Your task to perform on an android device: Open calendar and show me the first week of next month Image 0: 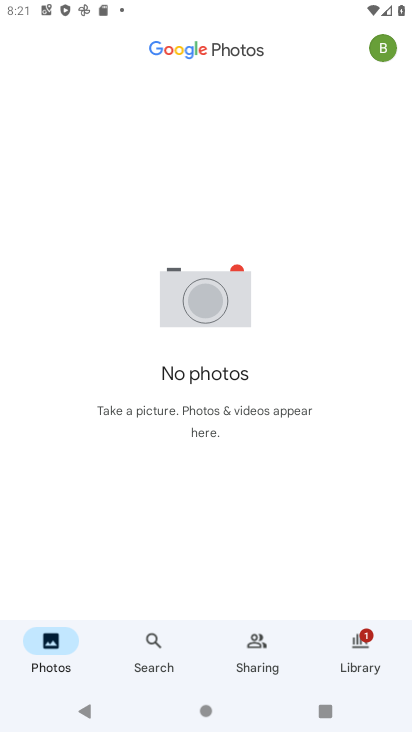
Step 0: press home button
Your task to perform on an android device: Open calendar and show me the first week of next month Image 1: 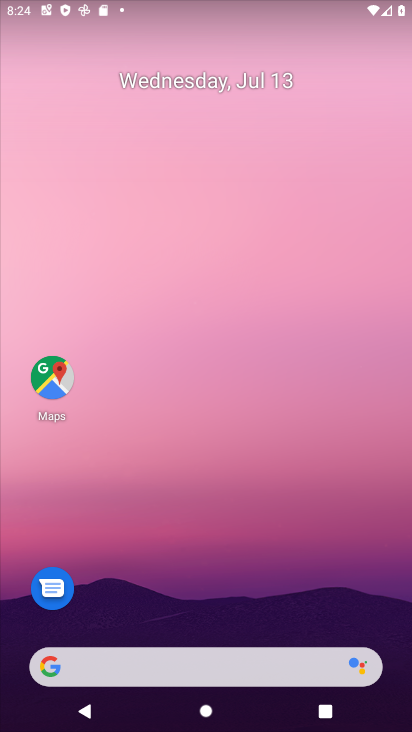
Step 1: drag from (140, 634) to (164, 17)
Your task to perform on an android device: Open calendar and show me the first week of next month Image 2: 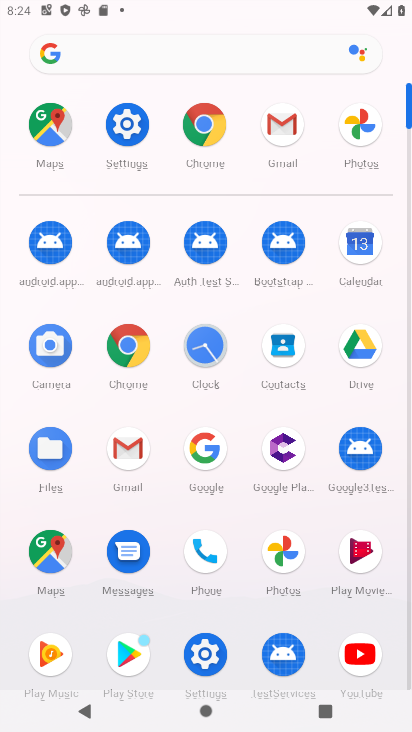
Step 2: click (360, 254)
Your task to perform on an android device: Open calendar and show me the first week of next month Image 3: 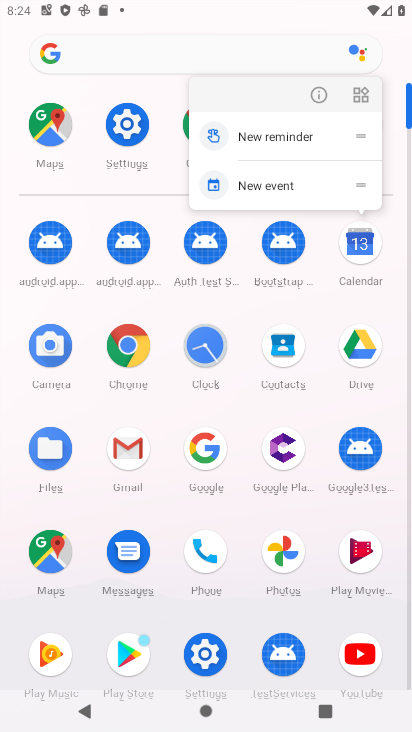
Step 3: click (360, 254)
Your task to perform on an android device: Open calendar and show me the first week of next month Image 4: 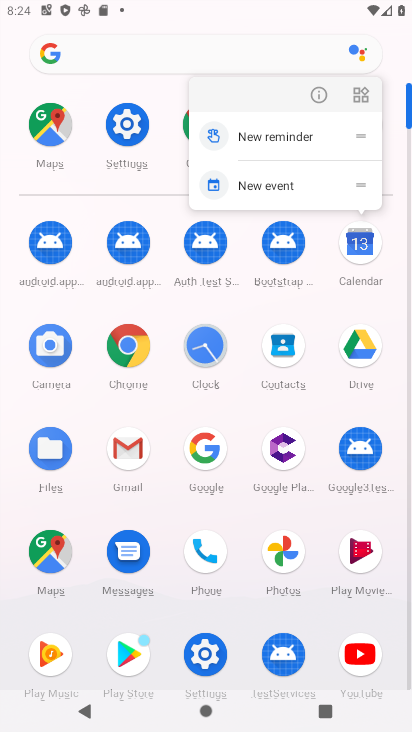
Step 4: click (360, 254)
Your task to perform on an android device: Open calendar and show me the first week of next month Image 5: 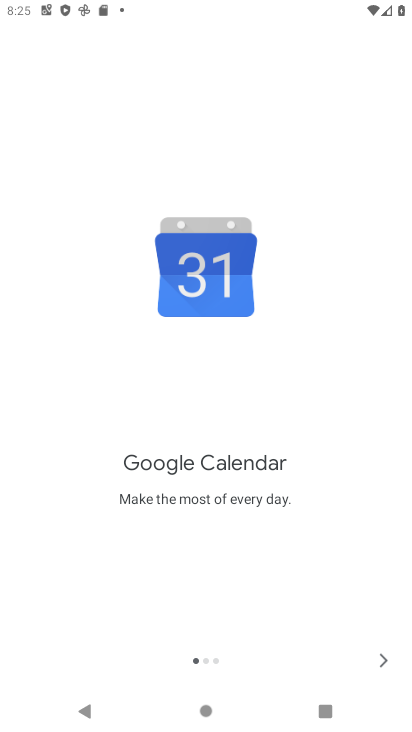
Step 5: click (376, 663)
Your task to perform on an android device: Open calendar and show me the first week of next month Image 6: 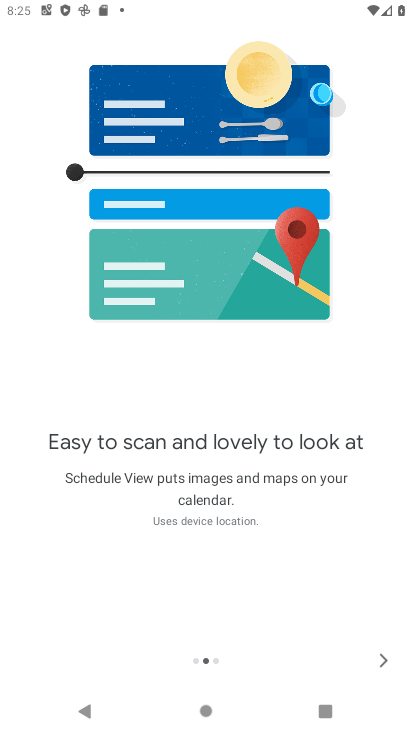
Step 6: click (382, 658)
Your task to perform on an android device: Open calendar and show me the first week of next month Image 7: 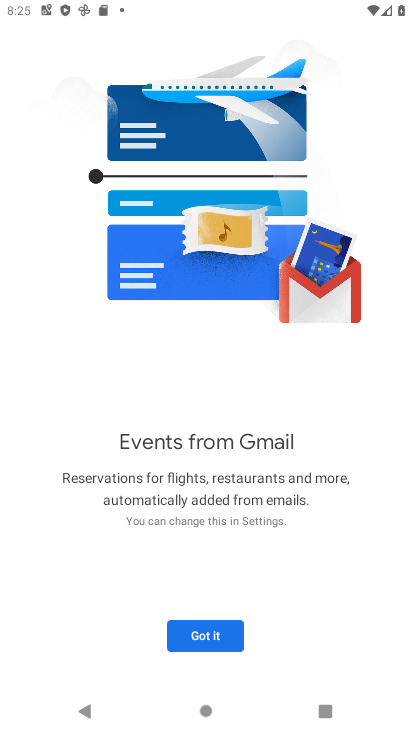
Step 7: click (210, 631)
Your task to perform on an android device: Open calendar and show me the first week of next month Image 8: 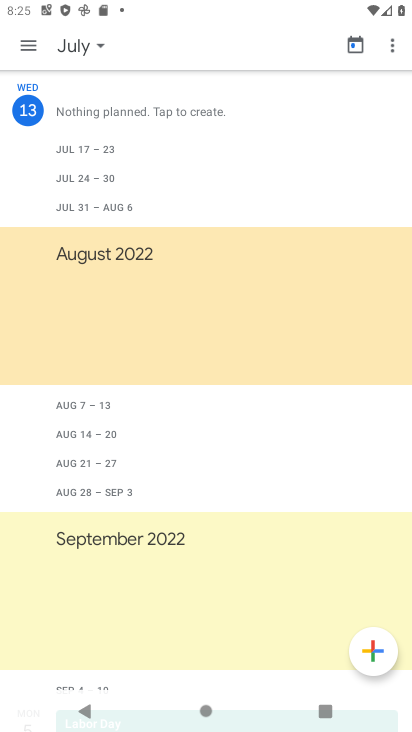
Step 8: click (73, 47)
Your task to perform on an android device: Open calendar and show me the first week of next month Image 9: 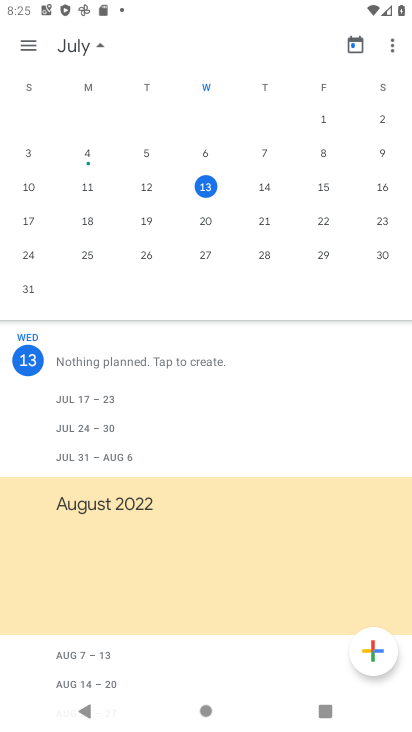
Step 9: task complete